Your task to perform on an android device: When is my next meeting? Image 0: 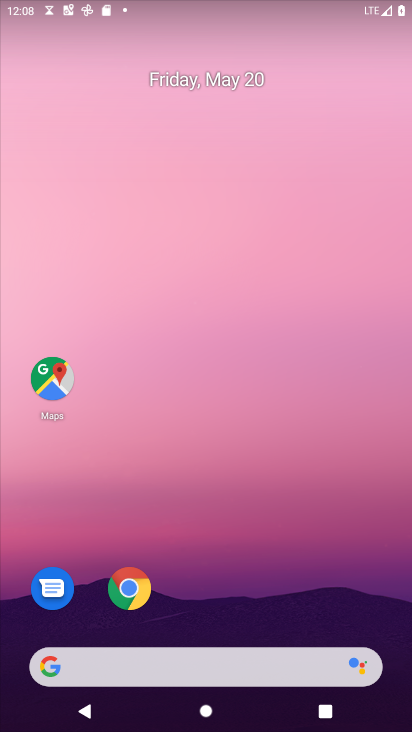
Step 0: drag from (265, 514) to (154, 10)
Your task to perform on an android device: When is my next meeting? Image 1: 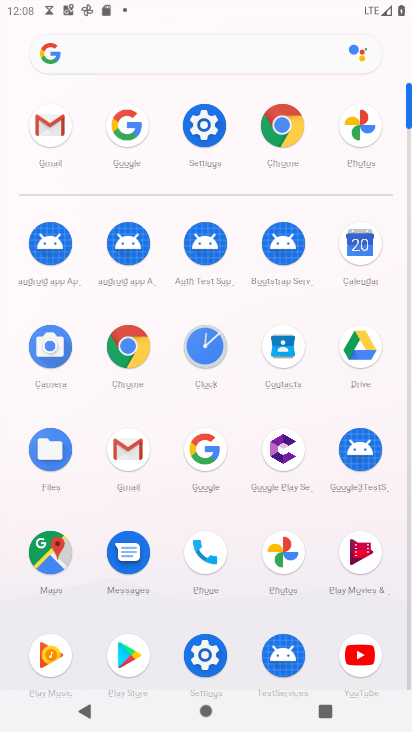
Step 1: click (356, 250)
Your task to perform on an android device: When is my next meeting? Image 2: 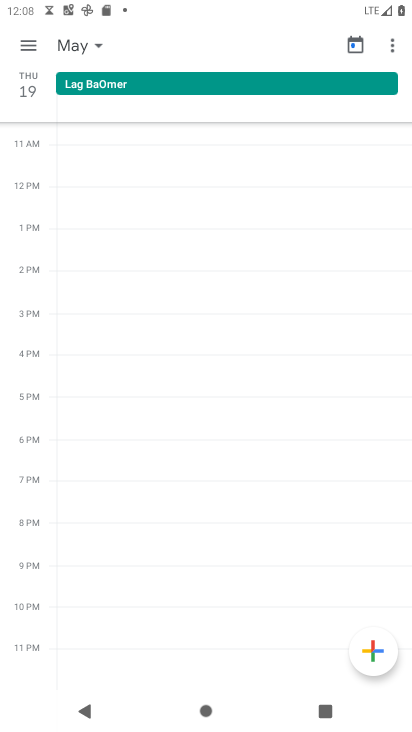
Step 2: drag from (16, 179) to (8, 597)
Your task to perform on an android device: When is my next meeting? Image 3: 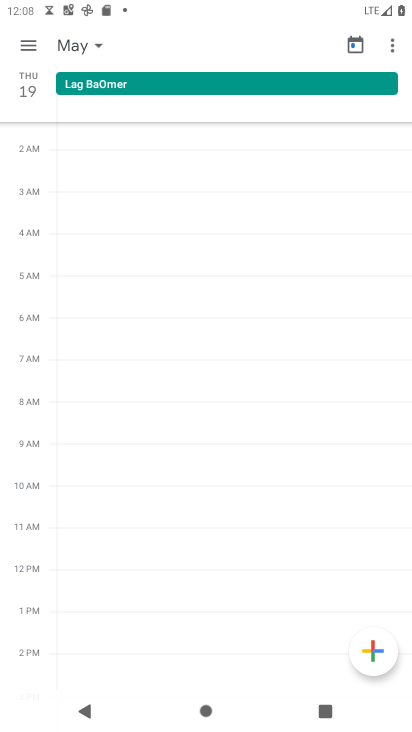
Step 3: click (24, 44)
Your task to perform on an android device: When is my next meeting? Image 4: 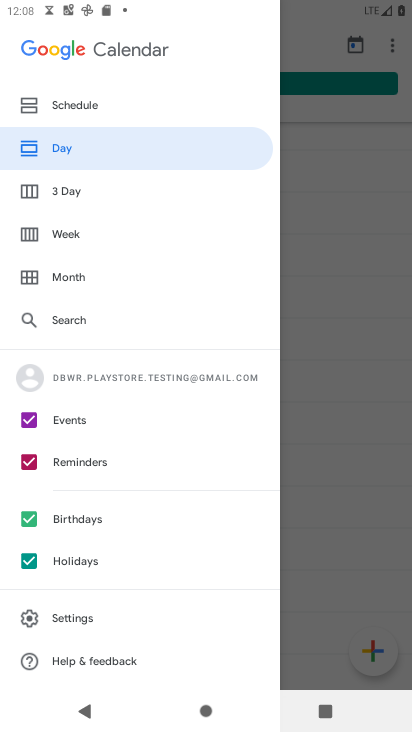
Step 4: click (69, 237)
Your task to perform on an android device: When is my next meeting? Image 5: 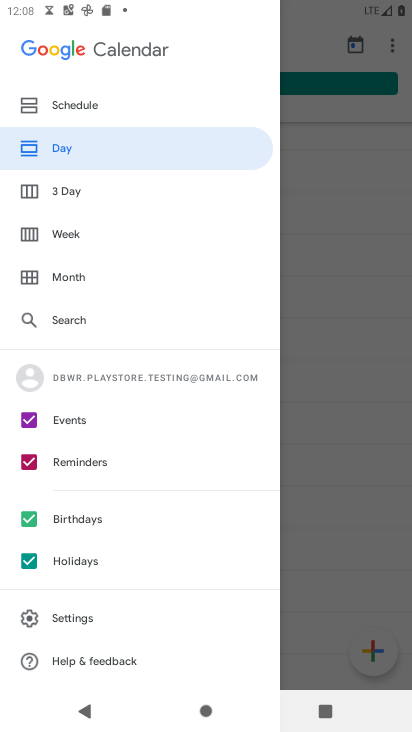
Step 5: click (72, 231)
Your task to perform on an android device: When is my next meeting? Image 6: 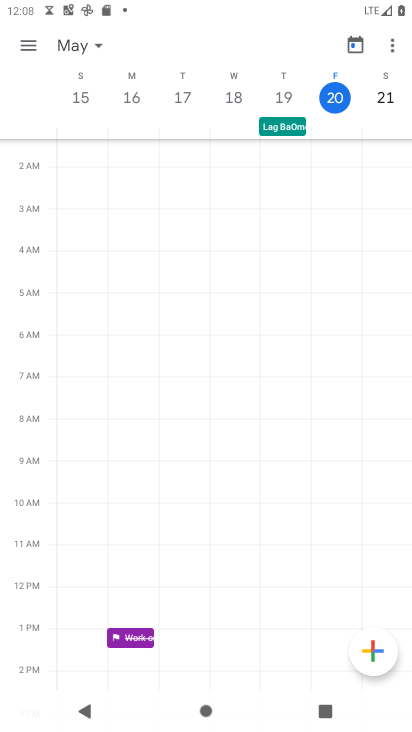
Step 6: task complete